Your task to perform on an android device: turn off translation in the chrome app Image 0: 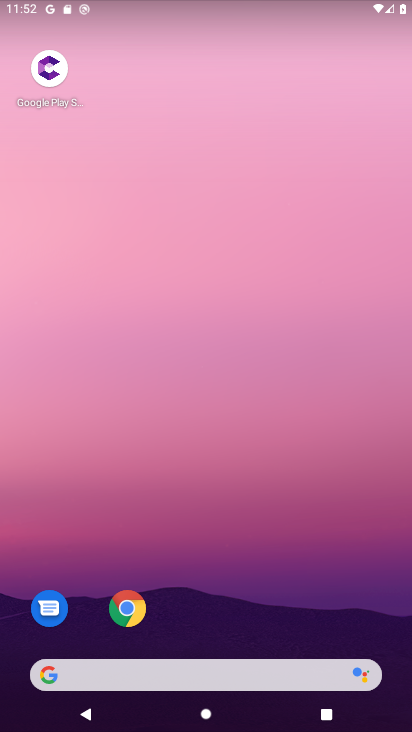
Step 0: click (127, 610)
Your task to perform on an android device: turn off translation in the chrome app Image 1: 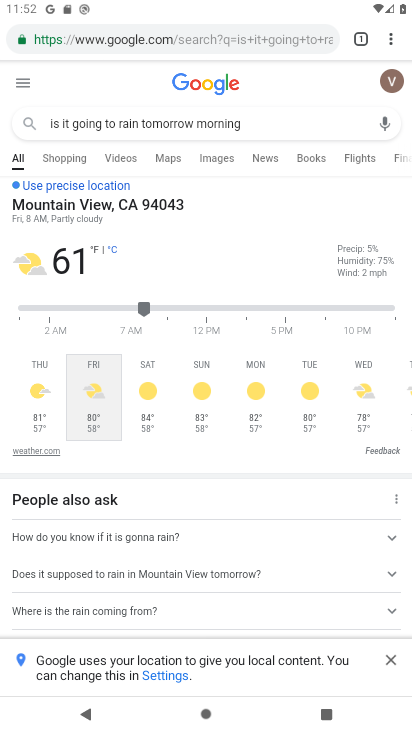
Step 1: click (386, 37)
Your task to perform on an android device: turn off translation in the chrome app Image 2: 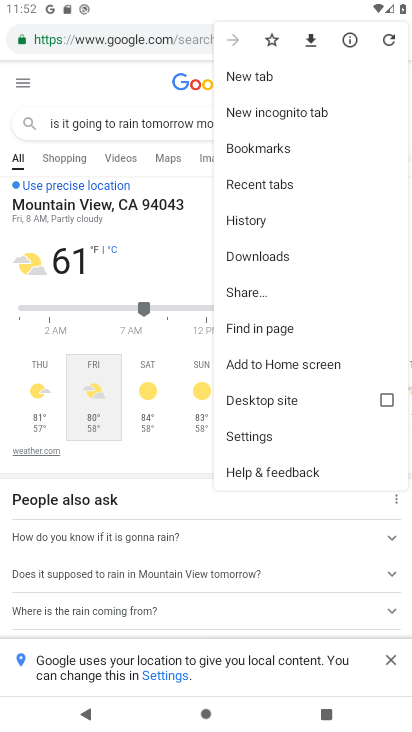
Step 2: click (253, 432)
Your task to perform on an android device: turn off translation in the chrome app Image 3: 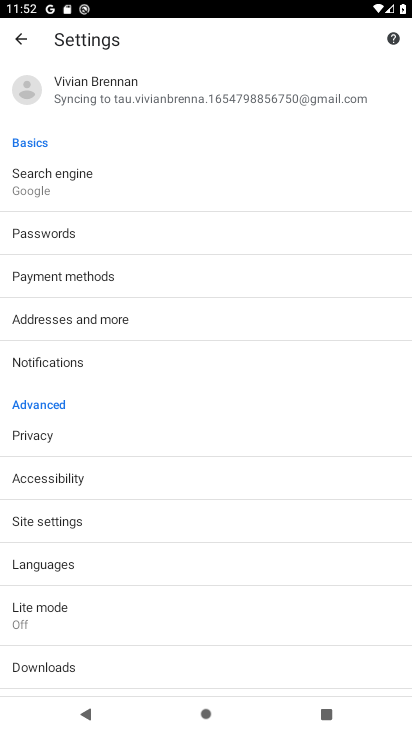
Step 3: click (42, 567)
Your task to perform on an android device: turn off translation in the chrome app Image 4: 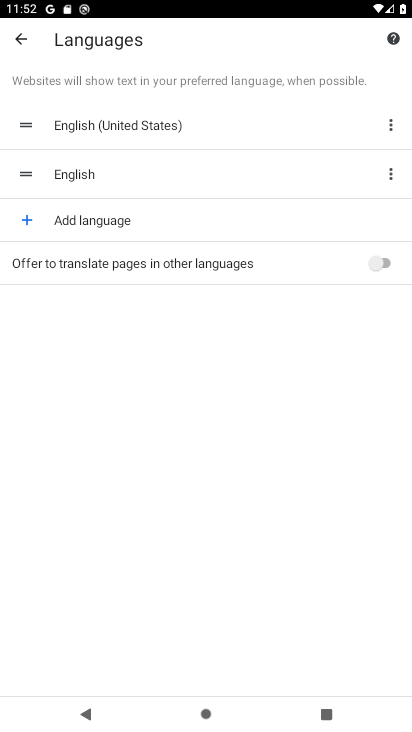
Step 4: task complete